Your task to perform on an android device: Open privacy settings Image 0: 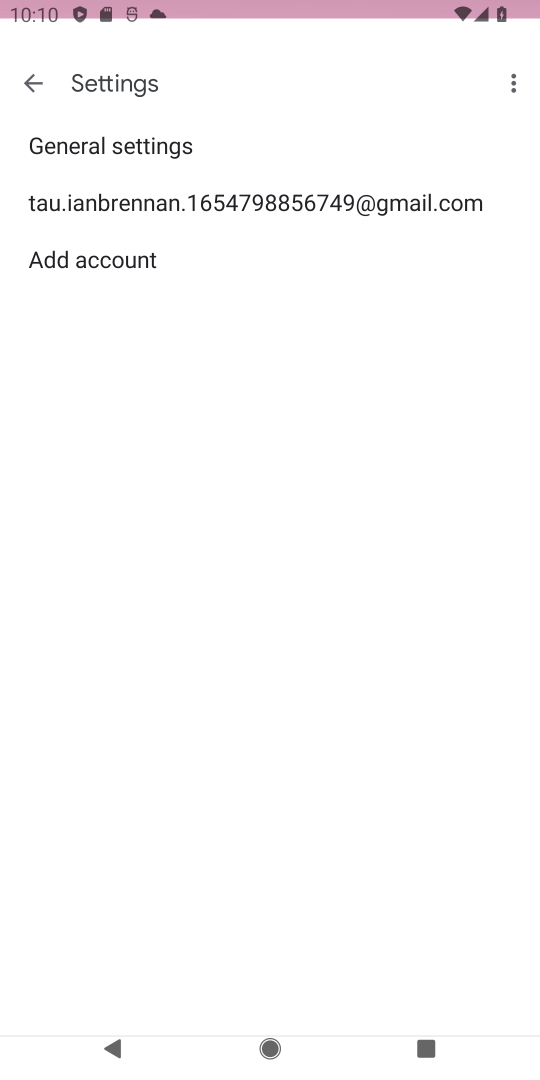
Step 0: press home button
Your task to perform on an android device: Open privacy settings Image 1: 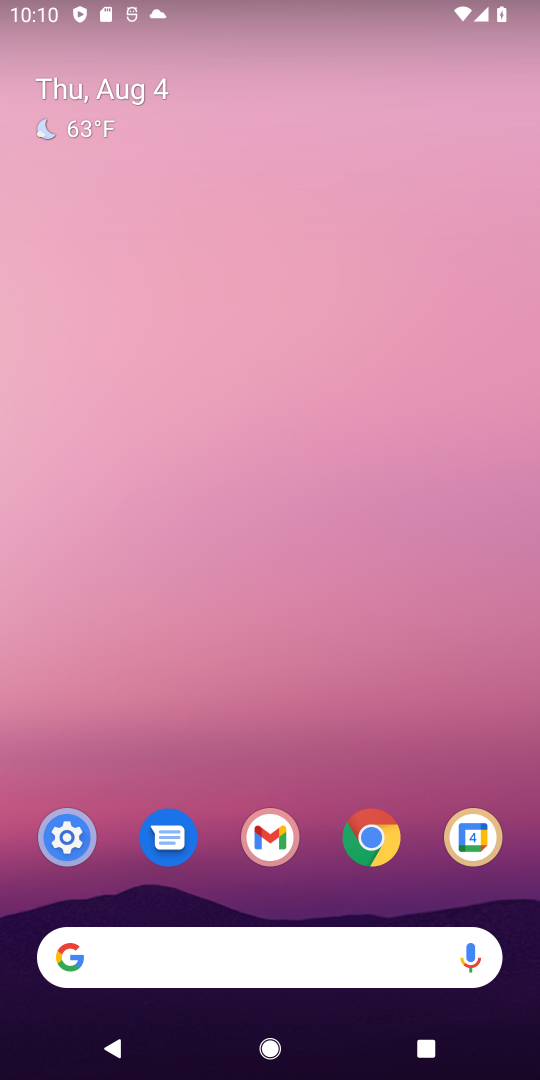
Step 1: drag from (310, 891) to (336, 72)
Your task to perform on an android device: Open privacy settings Image 2: 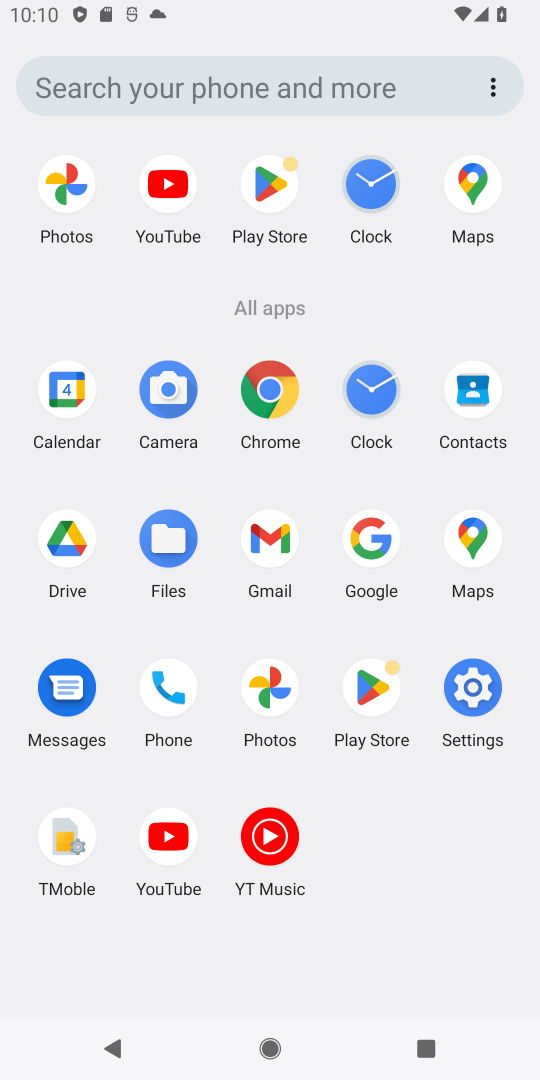
Step 2: click (474, 679)
Your task to perform on an android device: Open privacy settings Image 3: 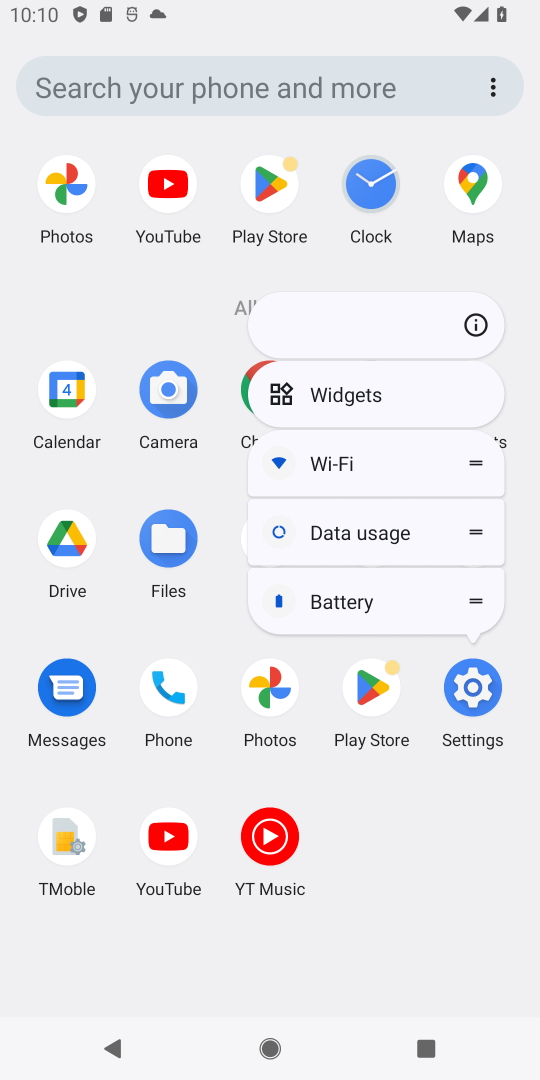
Step 3: click (465, 685)
Your task to perform on an android device: Open privacy settings Image 4: 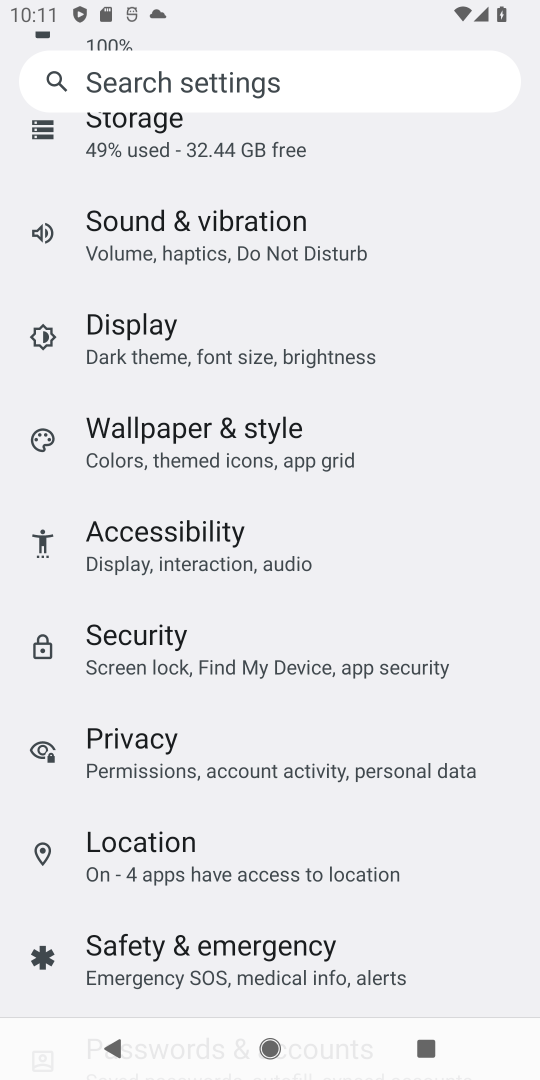
Step 4: click (202, 742)
Your task to perform on an android device: Open privacy settings Image 5: 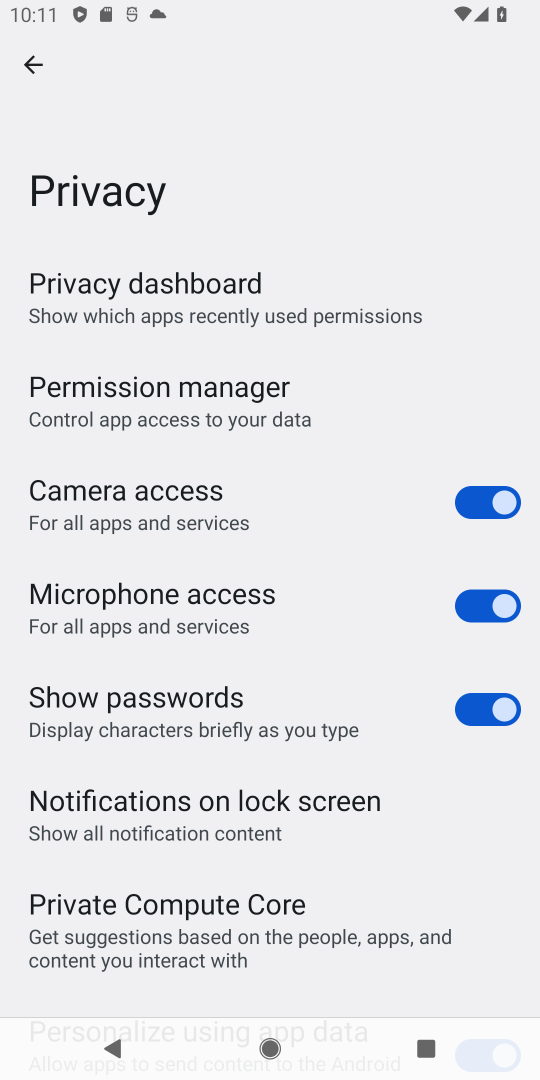
Step 5: task complete